Your task to perform on an android device: Empty the shopping cart on amazon. Add lenovo thinkpad to the cart on amazon, then select checkout. Image 0: 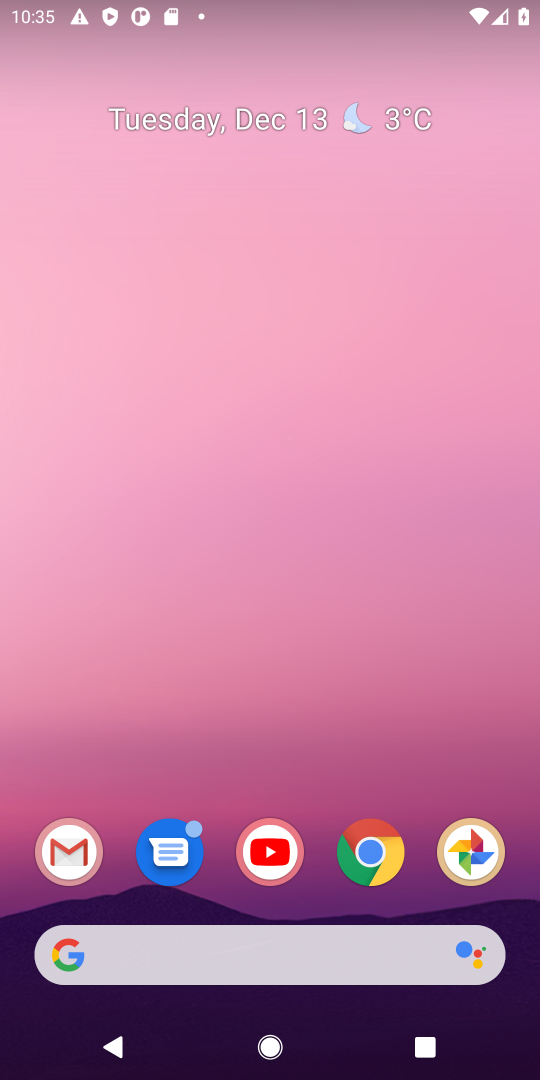
Step 0: press home button
Your task to perform on an android device: Empty the shopping cart on amazon. Add lenovo thinkpad to the cart on amazon, then select checkout. Image 1: 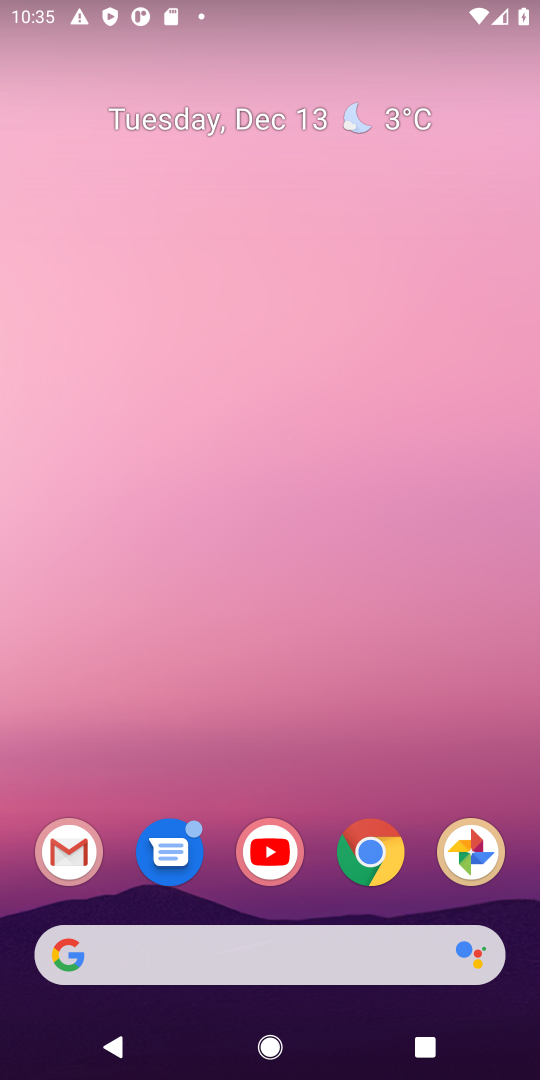
Step 1: click (104, 941)
Your task to perform on an android device: Empty the shopping cart on amazon. Add lenovo thinkpad to the cart on amazon, then select checkout. Image 2: 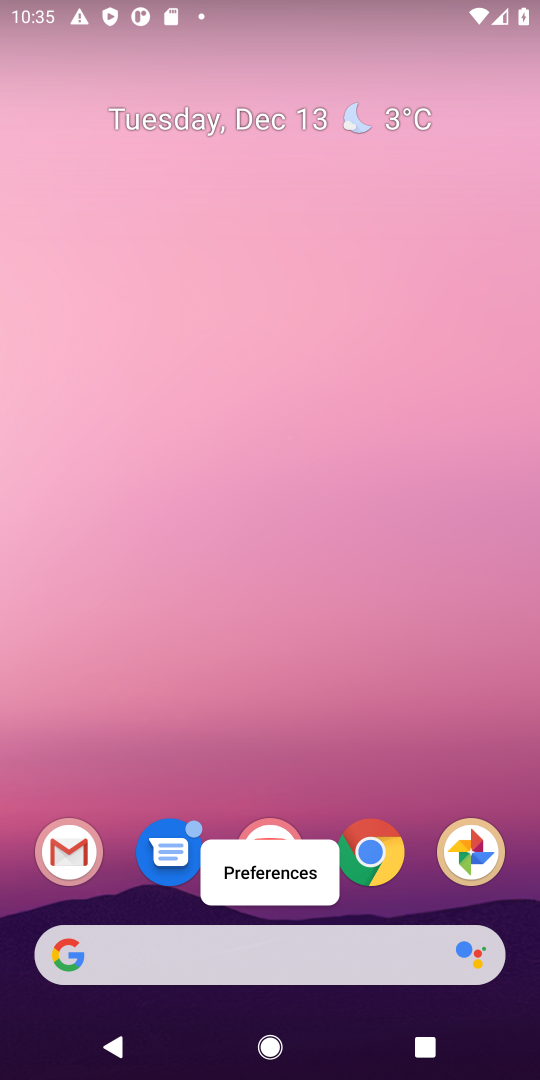
Step 2: click (101, 961)
Your task to perform on an android device: Empty the shopping cart on amazon. Add lenovo thinkpad to the cart on amazon, then select checkout. Image 3: 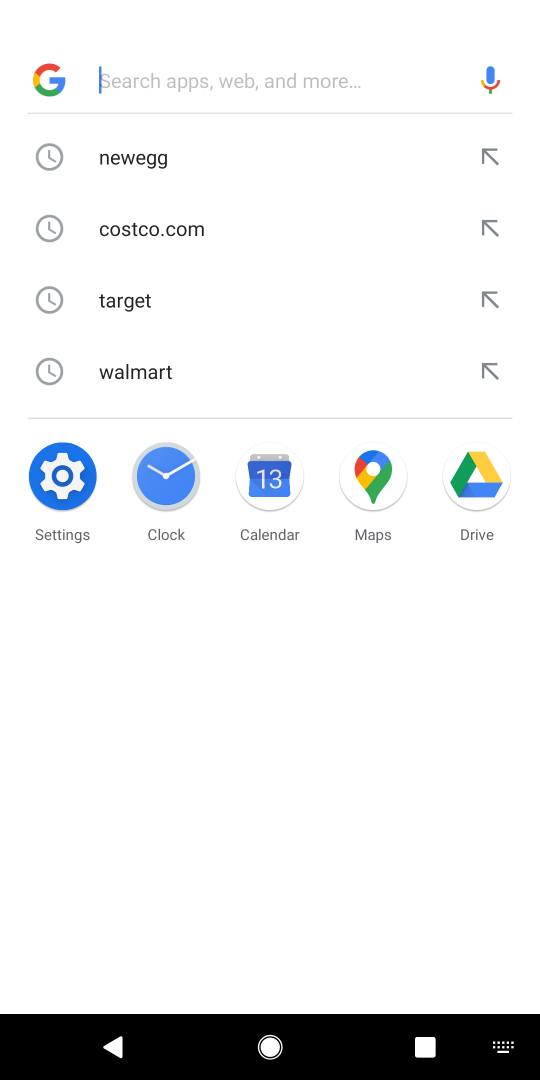
Step 3: type "amazon"
Your task to perform on an android device: Empty the shopping cart on amazon. Add lenovo thinkpad to the cart on amazon, then select checkout. Image 4: 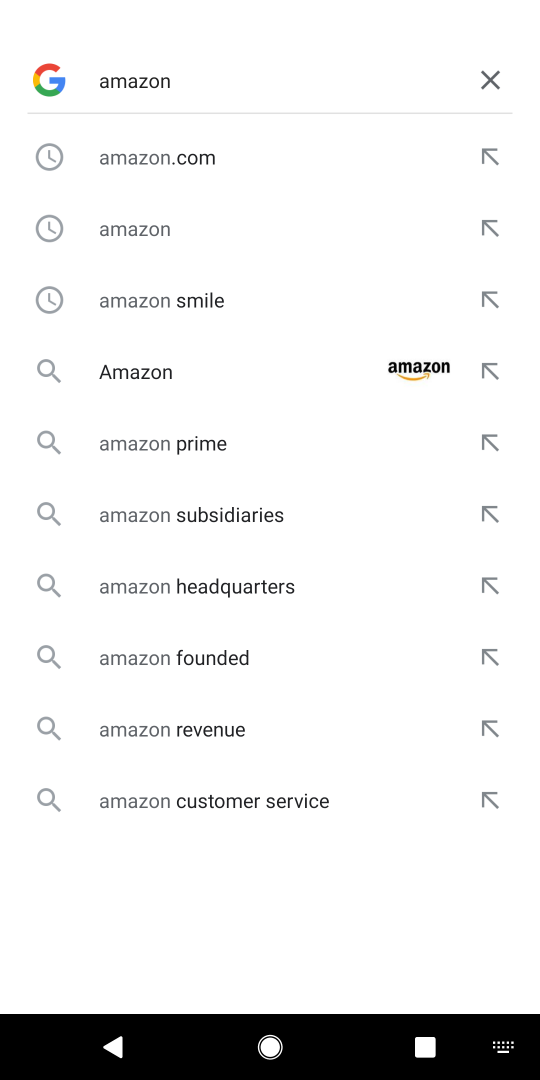
Step 4: press enter
Your task to perform on an android device: Empty the shopping cart on amazon. Add lenovo thinkpad to the cart on amazon, then select checkout. Image 5: 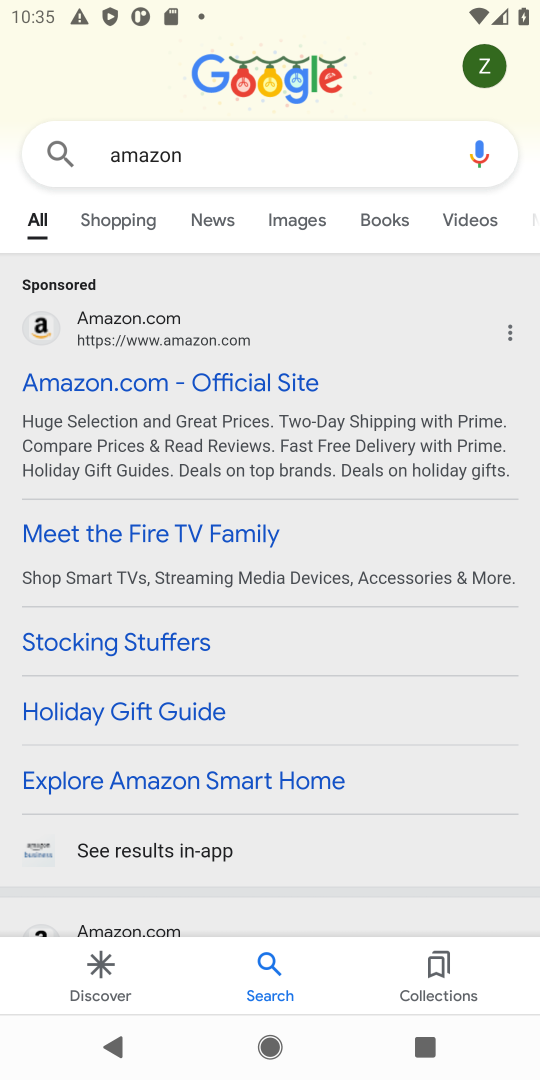
Step 5: click (267, 371)
Your task to perform on an android device: Empty the shopping cart on amazon. Add lenovo thinkpad to the cart on amazon, then select checkout. Image 6: 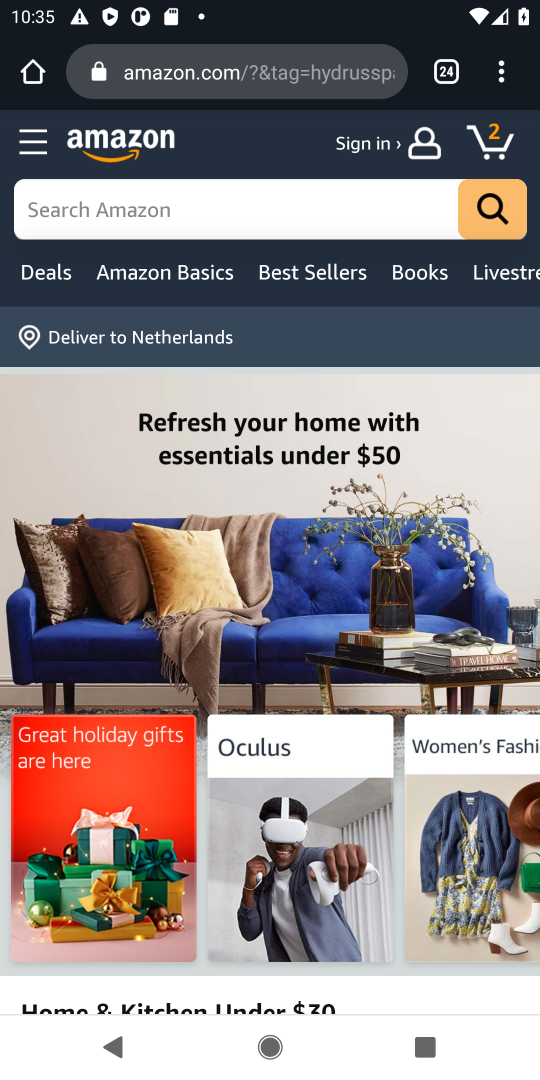
Step 6: click (490, 138)
Your task to perform on an android device: Empty the shopping cart on amazon. Add lenovo thinkpad to the cart on amazon, then select checkout. Image 7: 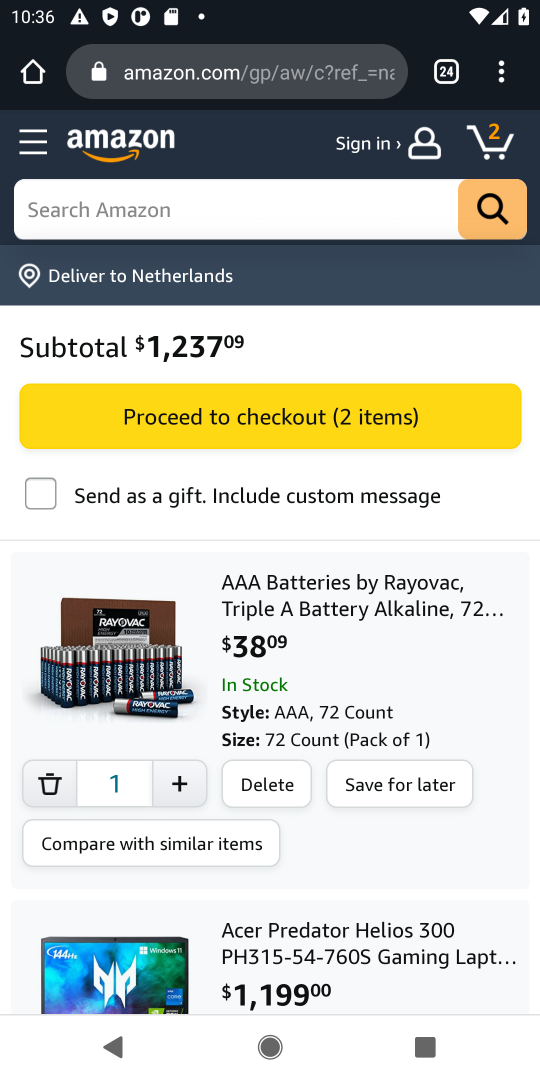
Step 7: click (43, 783)
Your task to perform on an android device: Empty the shopping cart on amazon. Add lenovo thinkpad to the cart on amazon, then select checkout. Image 8: 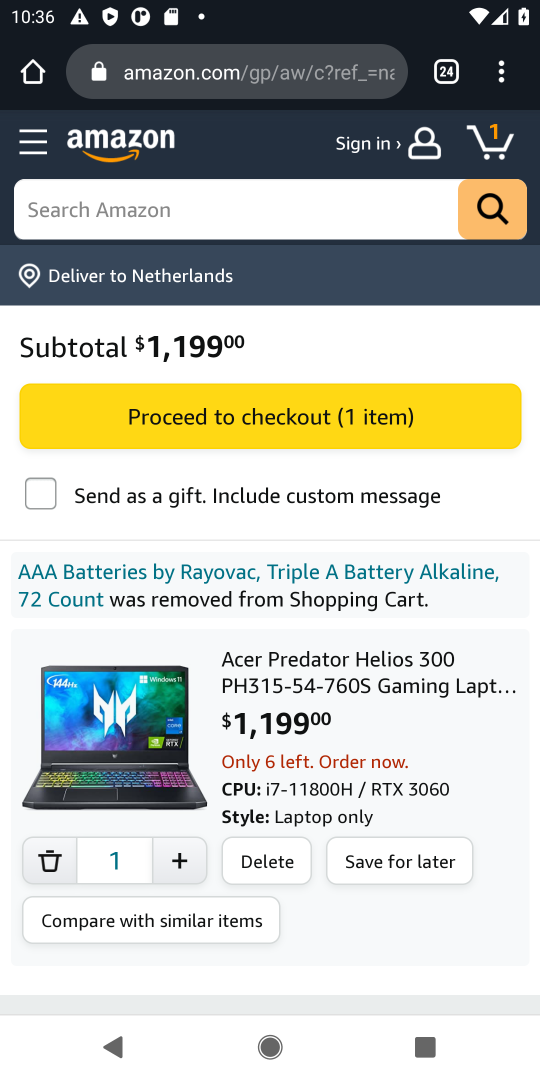
Step 8: click (39, 859)
Your task to perform on an android device: Empty the shopping cart on amazon. Add lenovo thinkpad to the cart on amazon, then select checkout. Image 9: 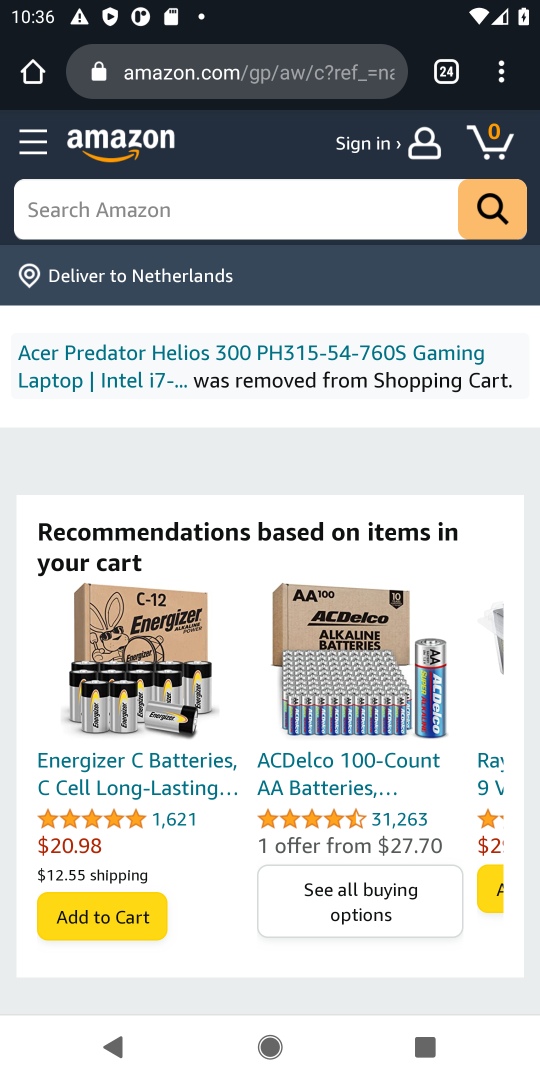
Step 9: click (273, 217)
Your task to perform on an android device: Empty the shopping cart on amazon. Add lenovo thinkpad to the cart on amazon, then select checkout. Image 10: 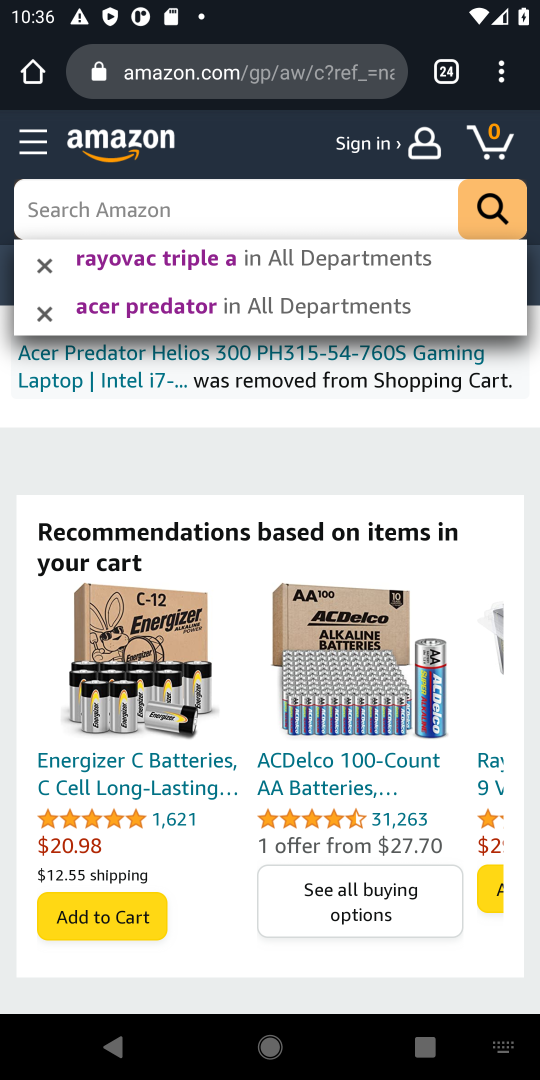
Step 10: type "lenovo thinkpad "
Your task to perform on an android device: Empty the shopping cart on amazon. Add lenovo thinkpad to the cart on amazon, then select checkout. Image 11: 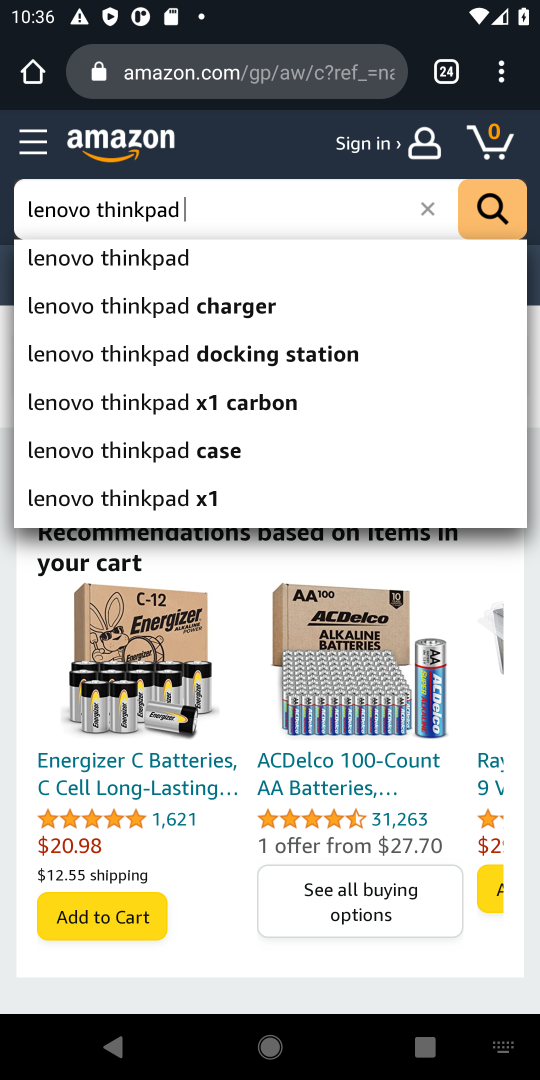
Step 11: press enter
Your task to perform on an android device: Empty the shopping cart on amazon. Add lenovo thinkpad to the cart on amazon, then select checkout. Image 12: 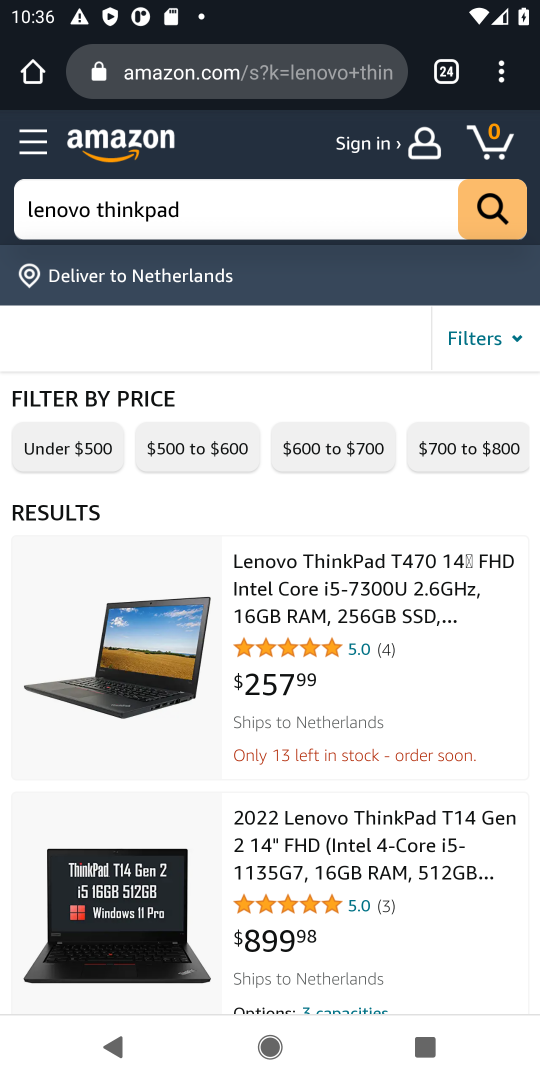
Step 12: click (362, 618)
Your task to perform on an android device: Empty the shopping cart on amazon. Add lenovo thinkpad to the cart on amazon, then select checkout. Image 13: 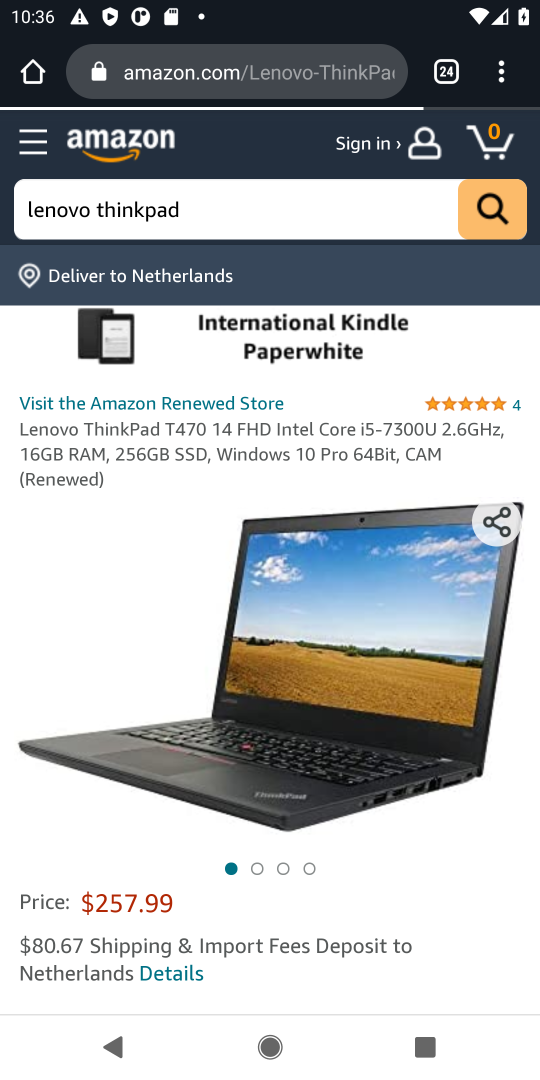
Step 13: drag from (332, 926) to (419, 570)
Your task to perform on an android device: Empty the shopping cart on amazon. Add lenovo thinkpad to the cart on amazon, then select checkout. Image 14: 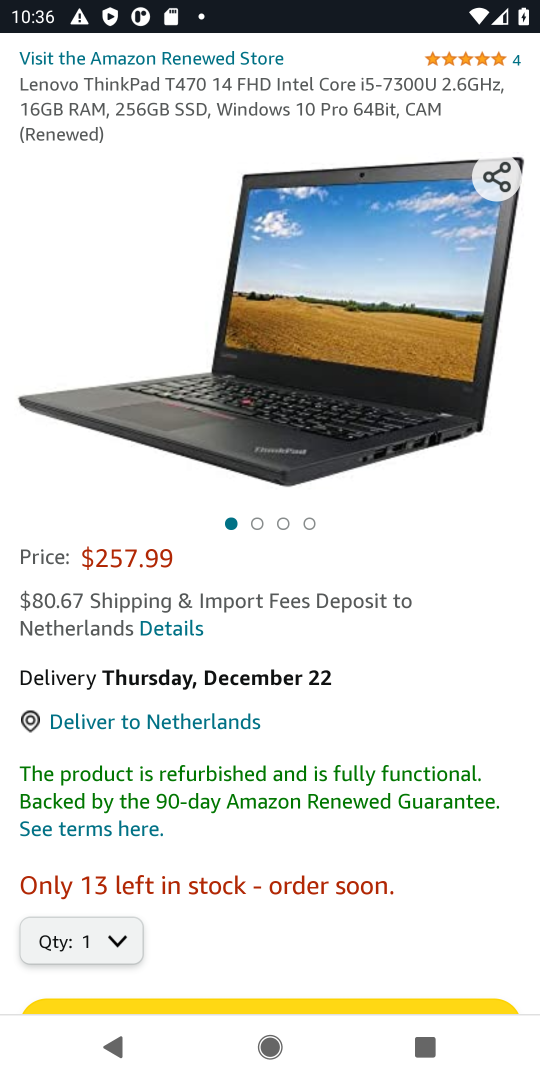
Step 14: drag from (457, 888) to (458, 453)
Your task to perform on an android device: Empty the shopping cart on amazon. Add lenovo thinkpad to the cart on amazon, then select checkout. Image 15: 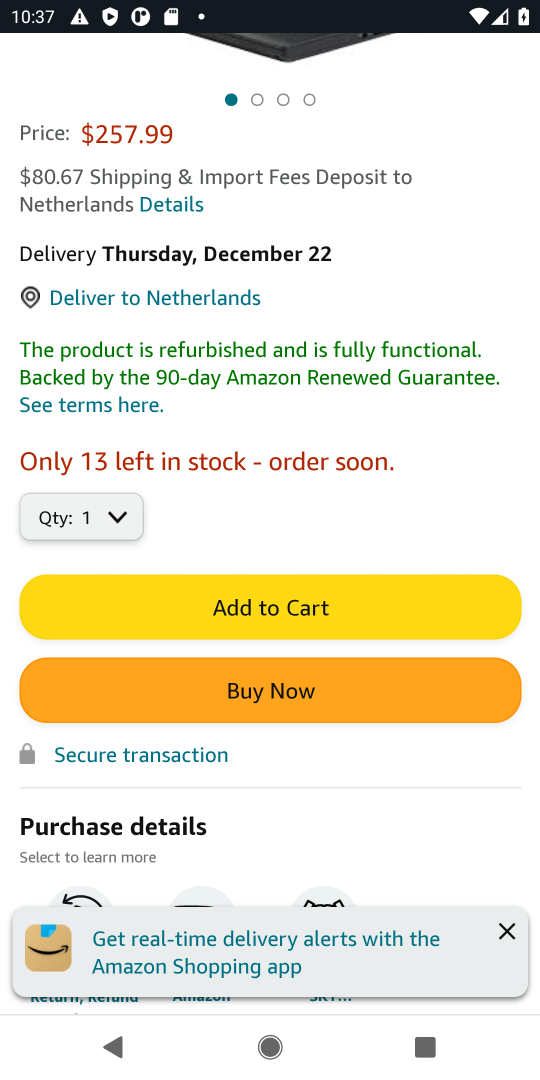
Step 15: click (253, 601)
Your task to perform on an android device: Empty the shopping cart on amazon. Add lenovo thinkpad to the cart on amazon, then select checkout. Image 16: 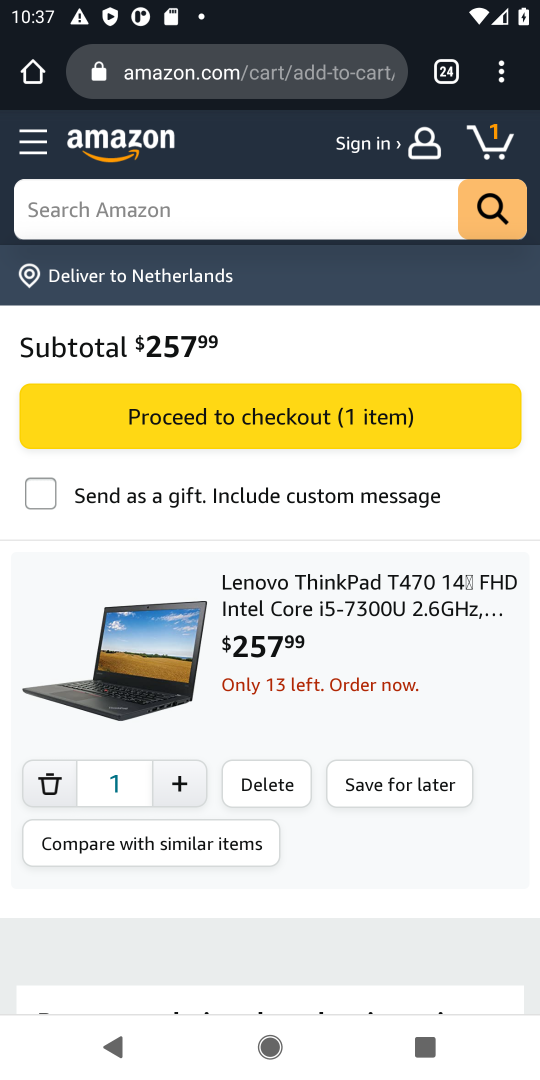
Step 16: click (226, 418)
Your task to perform on an android device: Empty the shopping cart on amazon. Add lenovo thinkpad to the cart on amazon, then select checkout. Image 17: 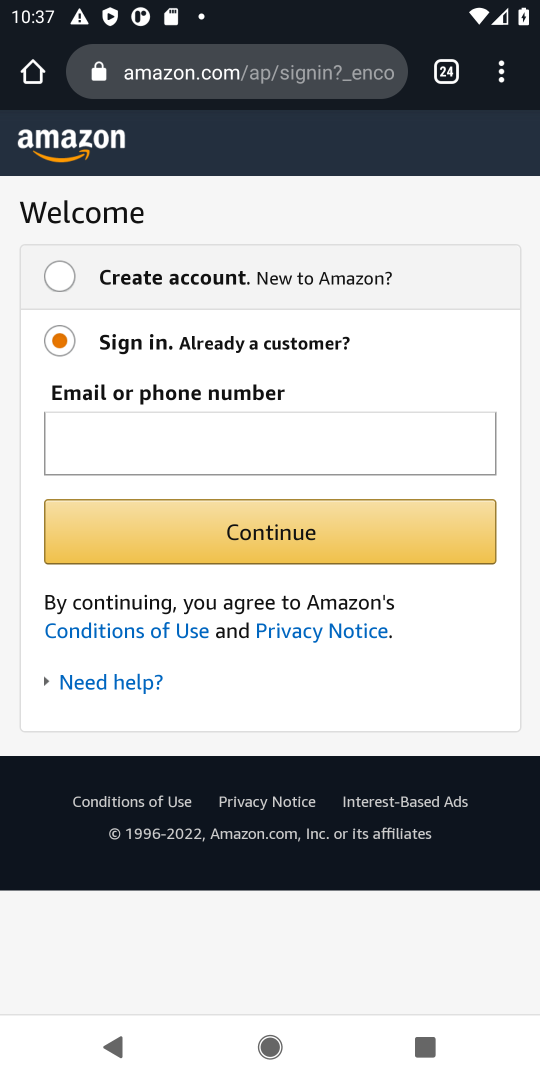
Step 17: task complete